Your task to perform on an android device: open app "Chime – Mobile Banking" (install if not already installed), go to login, and select forgot password Image 0: 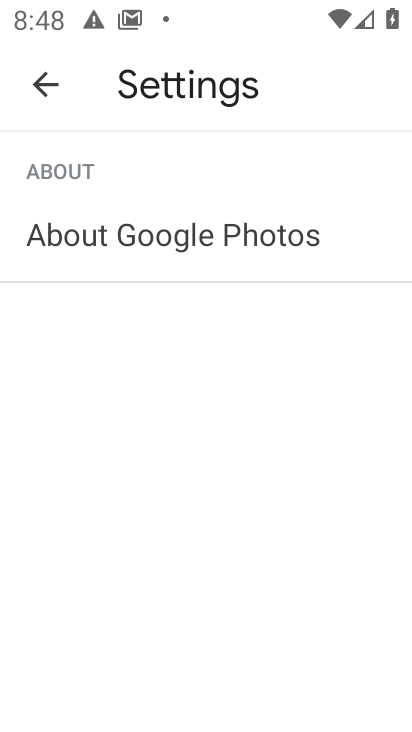
Step 0: press home button
Your task to perform on an android device: open app "Chime – Mobile Banking" (install if not already installed), go to login, and select forgot password Image 1: 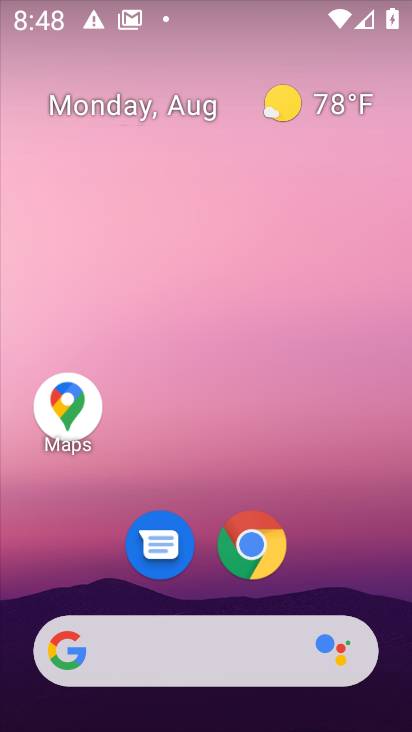
Step 1: drag from (352, 578) to (345, 99)
Your task to perform on an android device: open app "Chime – Mobile Banking" (install if not already installed), go to login, and select forgot password Image 2: 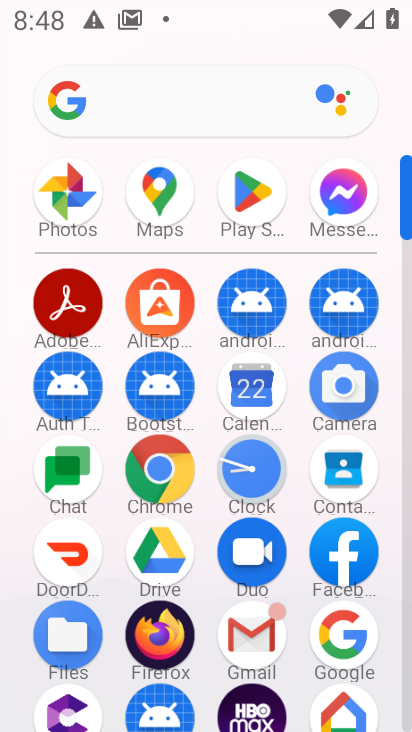
Step 2: click (249, 195)
Your task to perform on an android device: open app "Chime – Mobile Banking" (install if not already installed), go to login, and select forgot password Image 3: 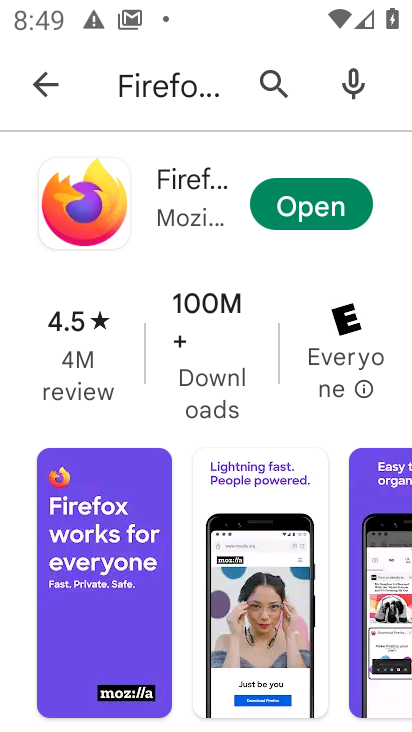
Step 3: press back button
Your task to perform on an android device: open app "Chime – Mobile Banking" (install if not already installed), go to login, and select forgot password Image 4: 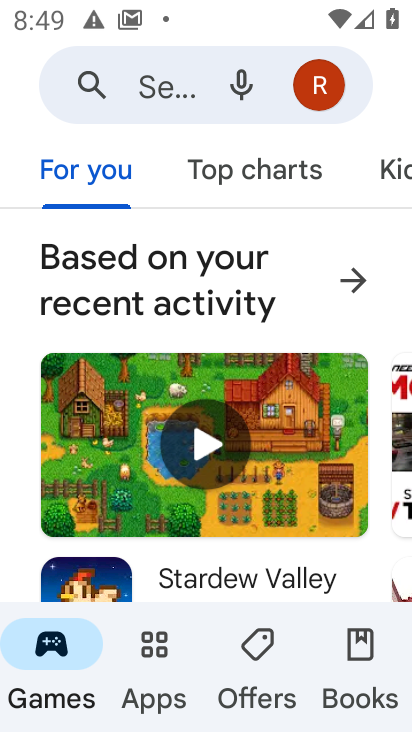
Step 4: click (147, 101)
Your task to perform on an android device: open app "Chime – Mobile Banking" (install if not already installed), go to login, and select forgot password Image 5: 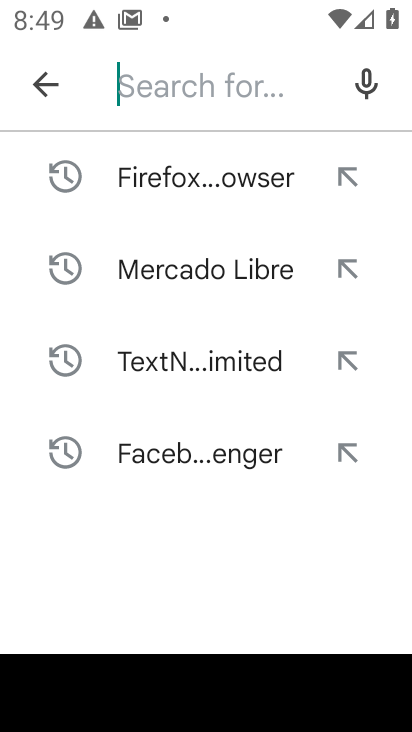
Step 5: type "Chime – Mobile Banking"
Your task to perform on an android device: open app "Chime – Mobile Banking" (install if not already installed), go to login, and select forgot password Image 6: 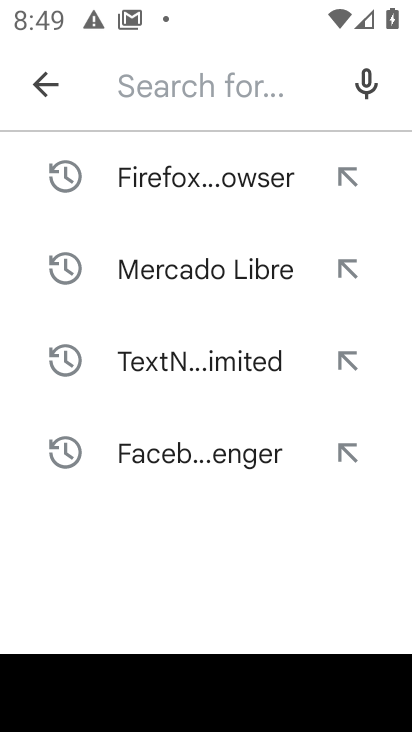
Step 6: press enter
Your task to perform on an android device: open app "Chime – Mobile Banking" (install if not already installed), go to login, and select forgot password Image 7: 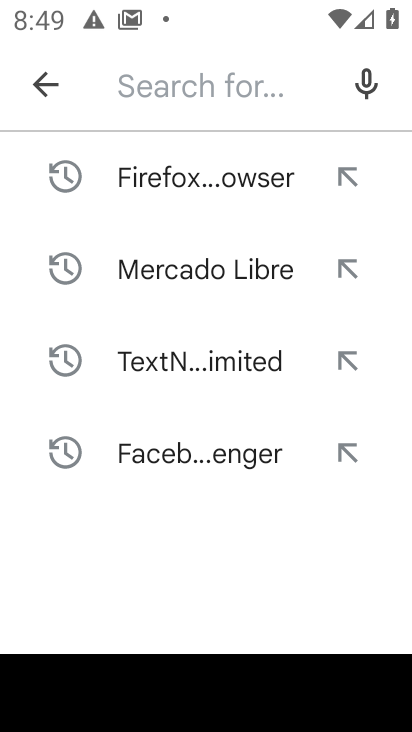
Step 7: type "Chime – Mobile Banking"
Your task to perform on an android device: open app "Chime – Mobile Banking" (install if not already installed), go to login, and select forgot password Image 8: 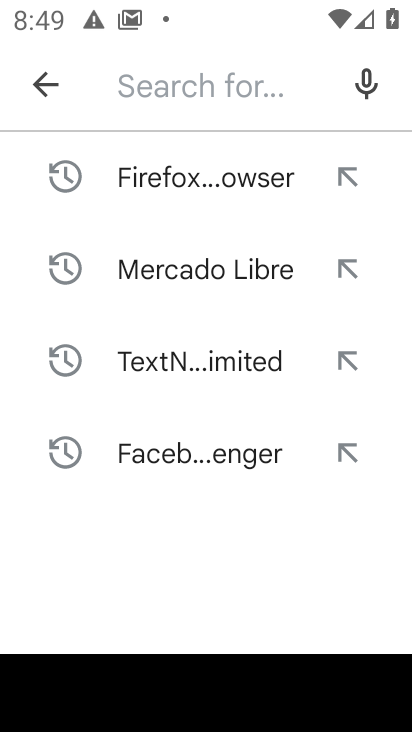
Step 8: task complete